Your task to perform on an android device: Go to notification settings Image 0: 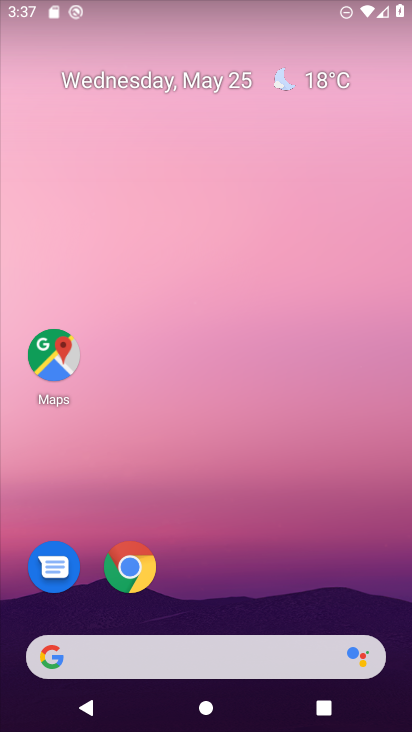
Step 0: drag from (386, 617) to (382, 273)
Your task to perform on an android device: Go to notification settings Image 1: 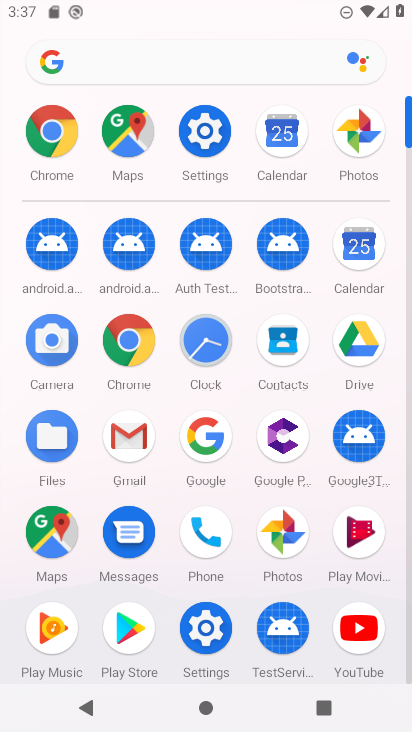
Step 1: click (212, 635)
Your task to perform on an android device: Go to notification settings Image 2: 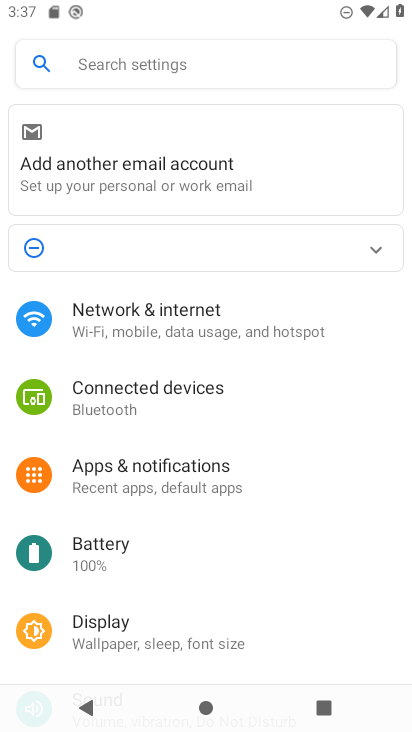
Step 2: drag from (345, 599) to (355, 506)
Your task to perform on an android device: Go to notification settings Image 3: 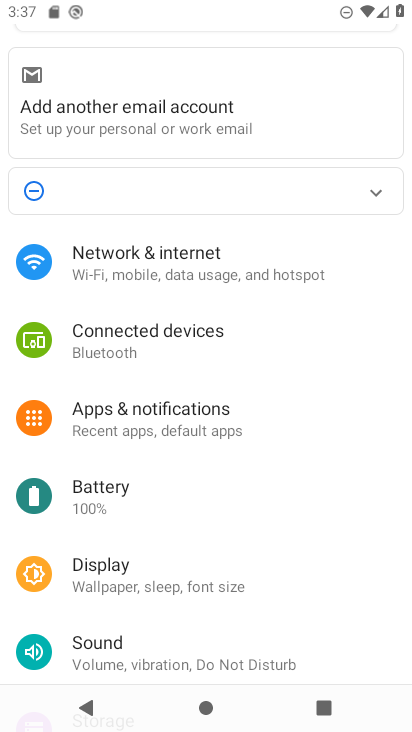
Step 3: drag from (367, 602) to (376, 500)
Your task to perform on an android device: Go to notification settings Image 4: 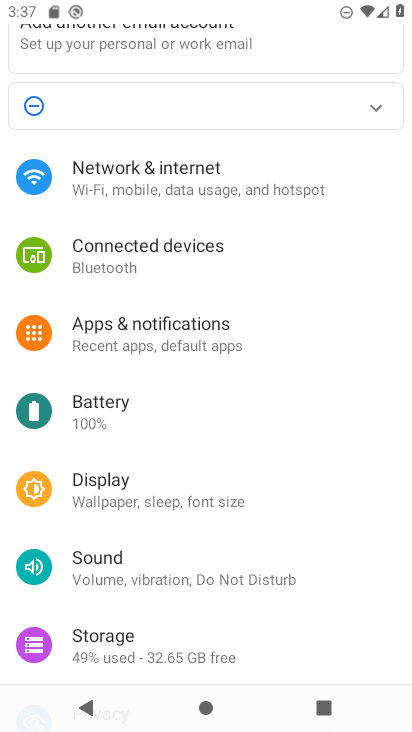
Step 4: drag from (370, 625) to (369, 492)
Your task to perform on an android device: Go to notification settings Image 5: 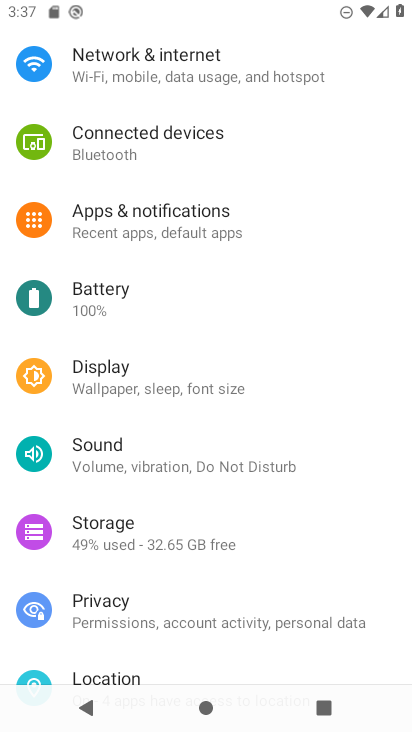
Step 5: drag from (351, 472) to (342, 407)
Your task to perform on an android device: Go to notification settings Image 6: 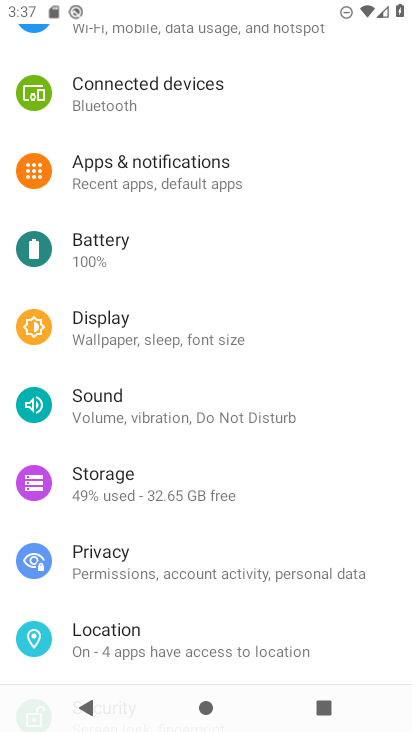
Step 6: drag from (346, 480) to (352, 376)
Your task to perform on an android device: Go to notification settings Image 7: 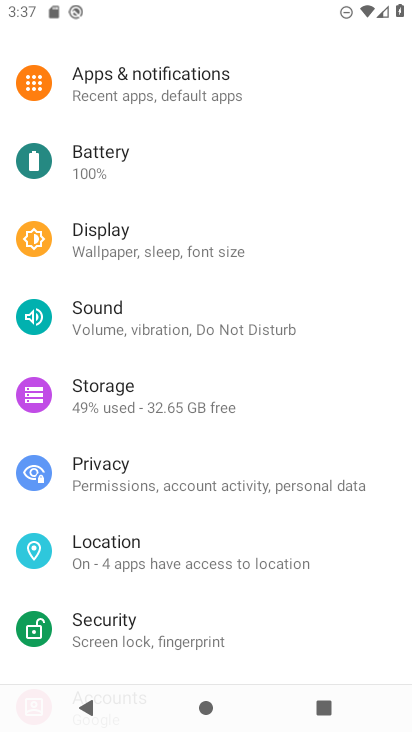
Step 7: drag from (371, 467) to (375, 326)
Your task to perform on an android device: Go to notification settings Image 8: 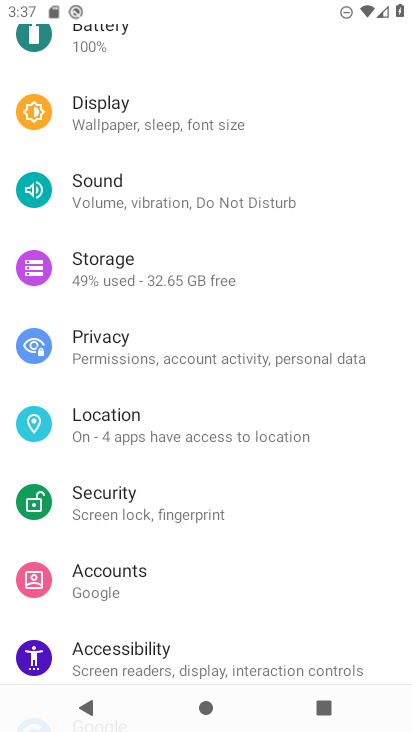
Step 8: drag from (360, 495) to (377, 330)
Your task to perform on an android device: Go to notification settings Image 9: 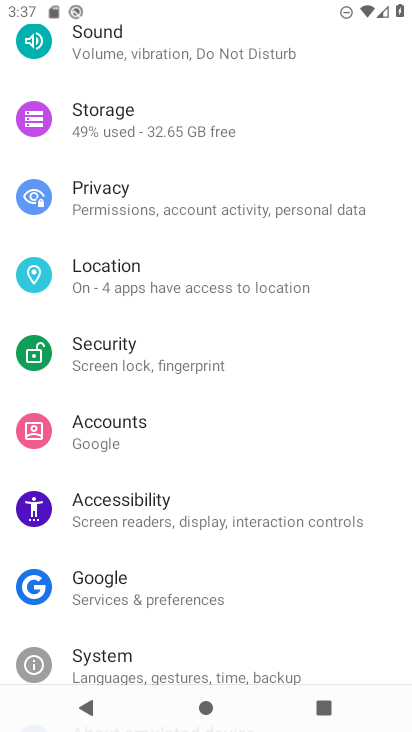
Step 9: drag from (354, 475) to (385, 342)
Your task to perform on an android device: Go to notification settings Image 10: 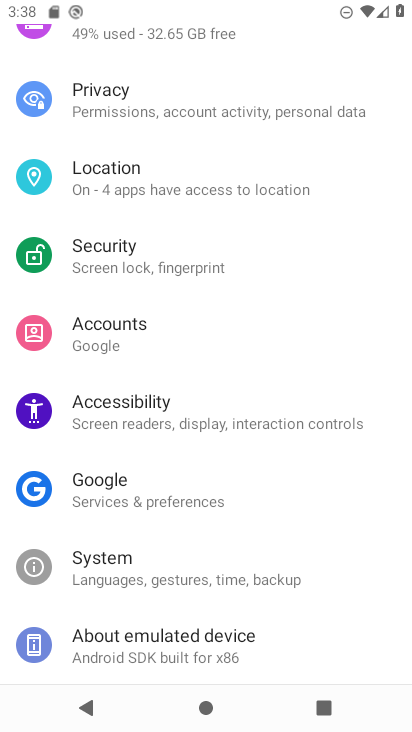
Step 10: drag from (360, 516) to (384, 360)
Your task to perform on an android device: Go to notification settings Image 11: 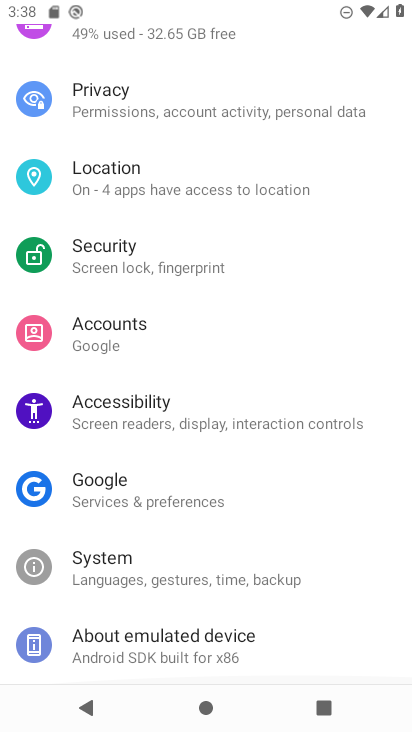
Step 11: drag from (386, 319) to (363, 442)
Your task to perform on an android device: Go to notification settings Image 12: 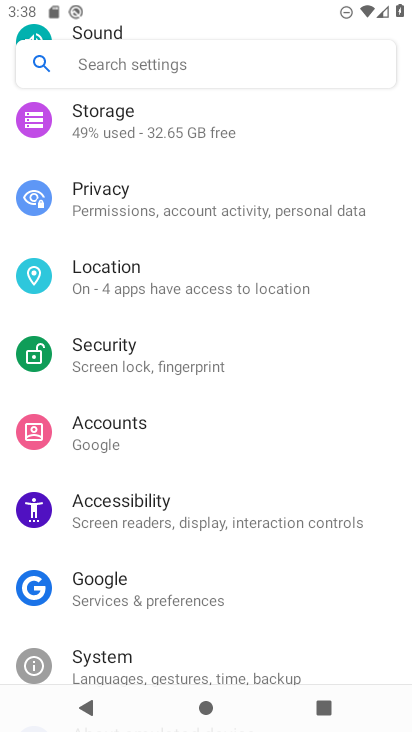
Step 12: drag from (362, 383) to (366, 449)
Your task to perform on an android device: Go to notification settings Image 13: 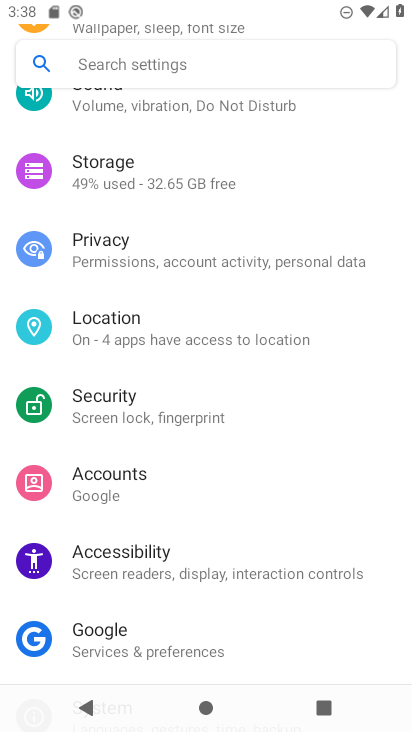
Step 13: drag from (376, 316) to (391, 418)
Your task to perform on an android device: Go to notification settings Image 14: 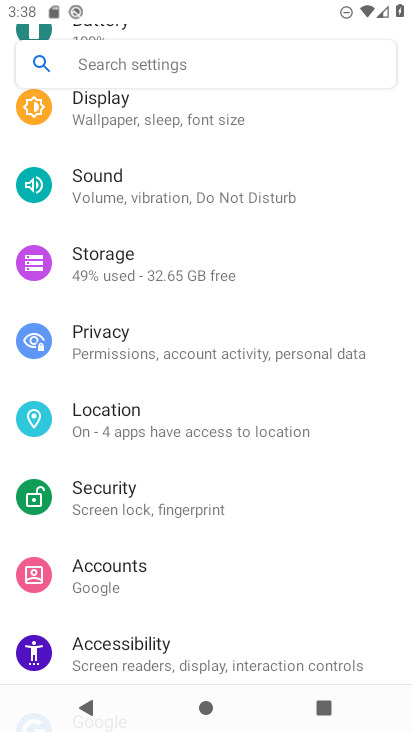
Step 14: drag from (374, 276) to (374, 395)
Your task to perform on an android device: Go to notification settings Image 15: 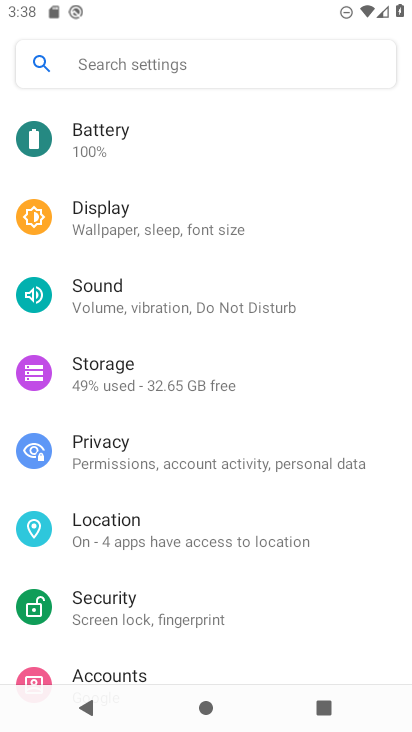
Step 15: drag from (377, 281) to (379, 376)
Your task to perform on an android device: Go to notification settings Image 16: 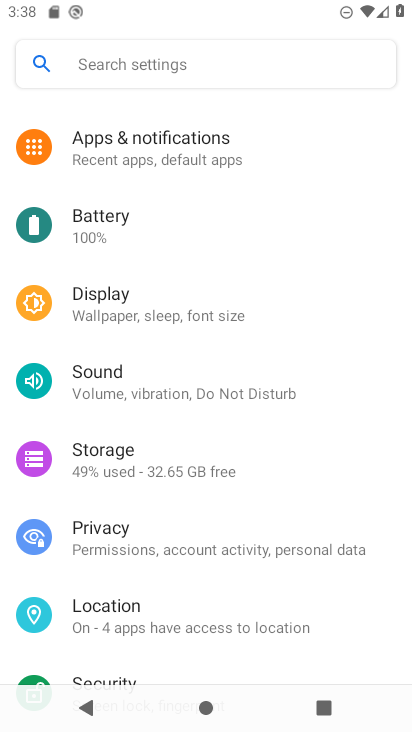
Step 16: drag from (376, 273) to (387, 368)
Your task to perform on an android device: Go to notification settings Image 17: 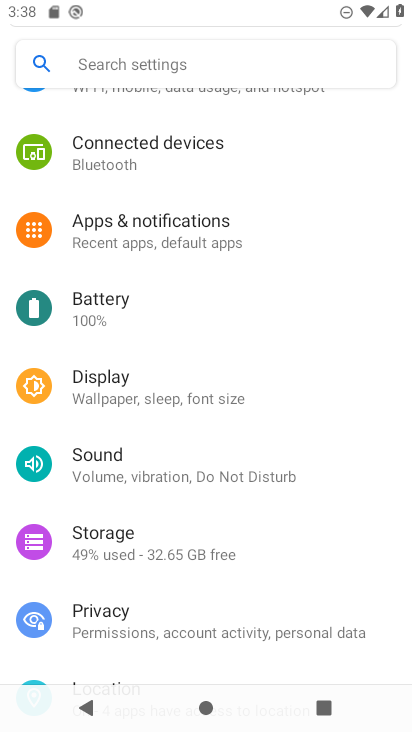
Step 17: drag from (371, 253) to (358, 360)
Your task to perform on an android device: Go to notification settings Image 18: 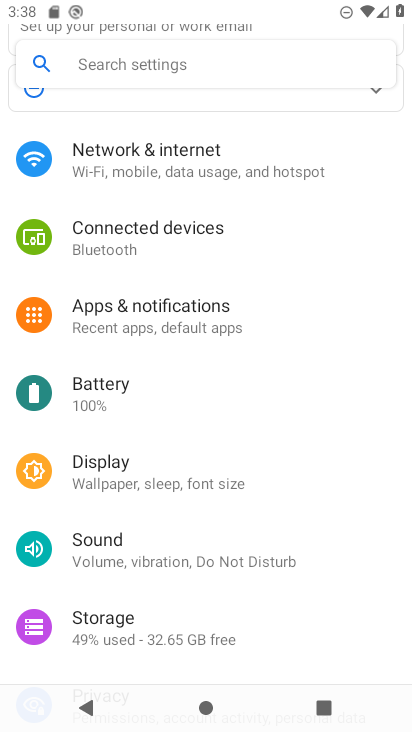
Step 18: drag from (357, 262) to (354, 357)
Your task to perform on an android device: Go to notification settings Image 19: 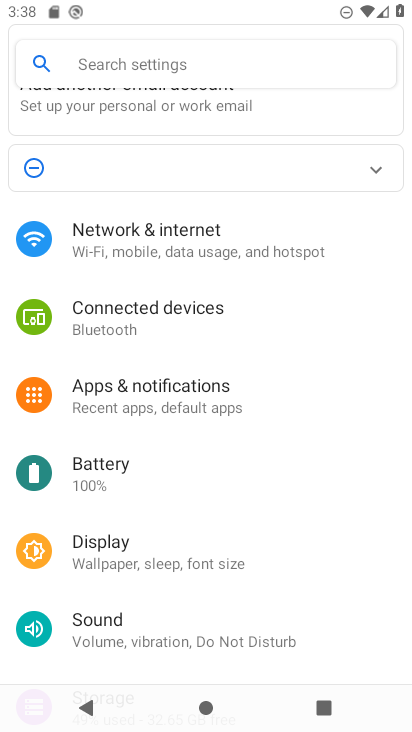
Step 19: drag from (360, 239) to (354, 339)
Your task to perform on an android device: Go to notification settings Image 20: 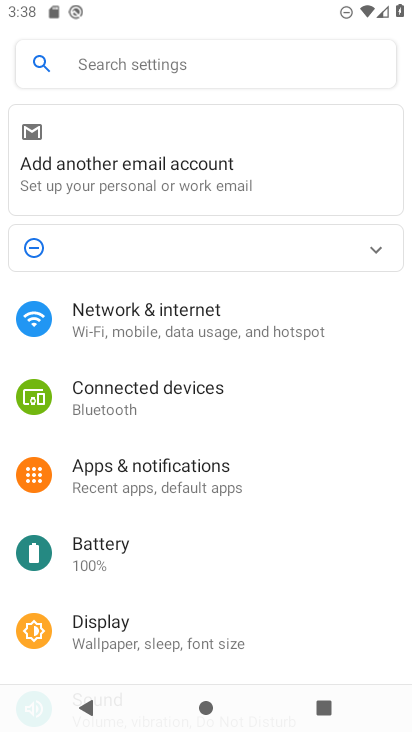
Step 20: click (249, 476)
Your task to perform on an android device: Go to notification settings Image 21: 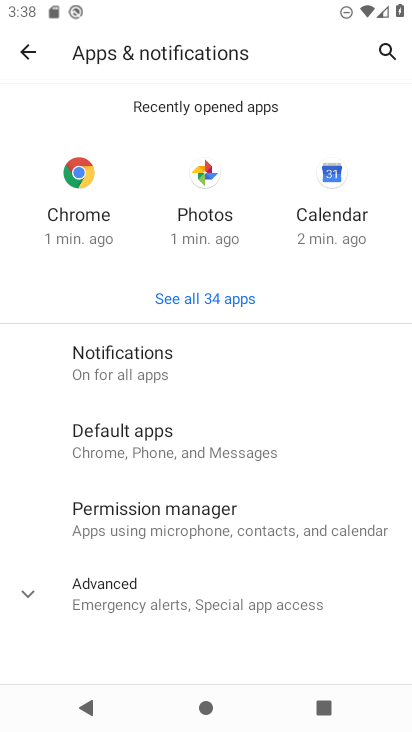
Step 21: click (183, 383)
Your task to perform on an android device: Go to notification settings Image 22: 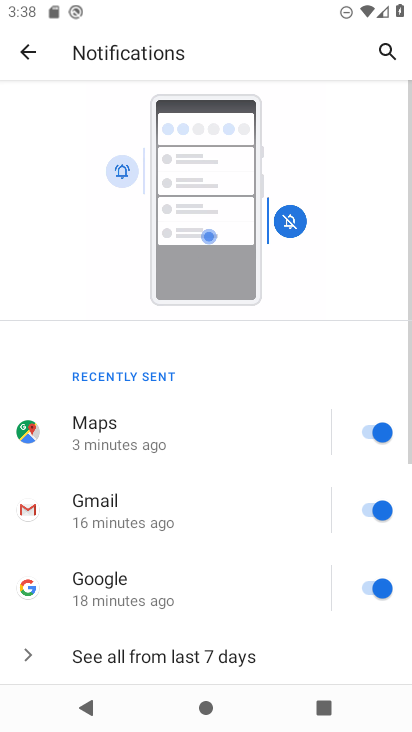
Step 22: task complete